Your task to perform on an android device: delete location history Image 0: 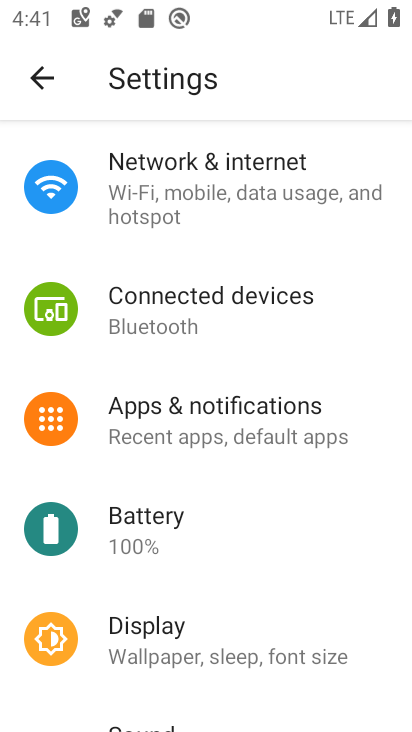
Step 0: drag from (165, 609) to (198, 378)
Your task to perform on an android device: delete location history Image 1: 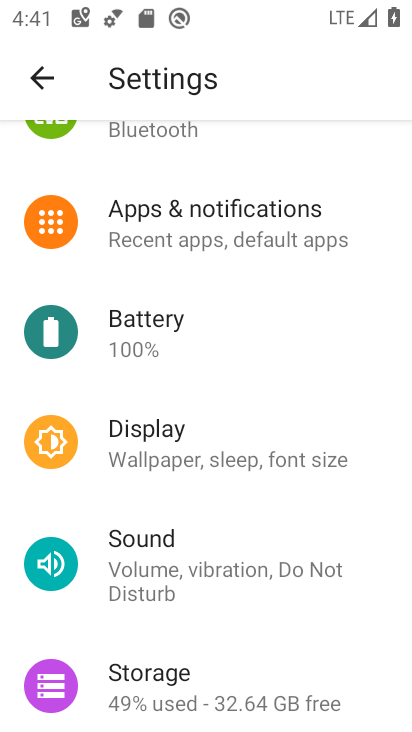
Step 1: press home button
Your task to perform on an android device: delete location history Image 2: 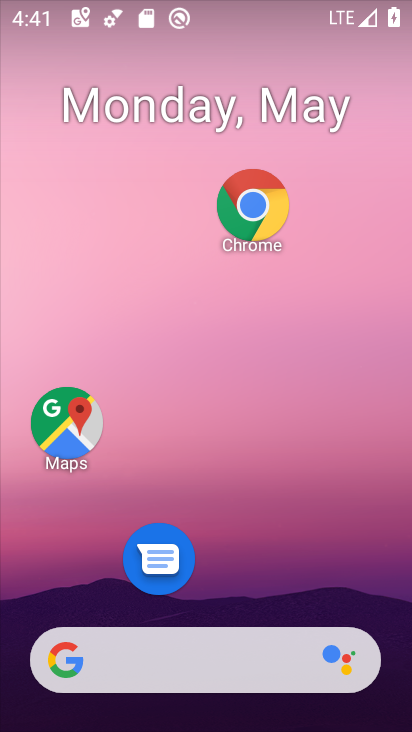
Step 2: click (77, 438)
Your task to perform on an android device: delete location history Image 3: 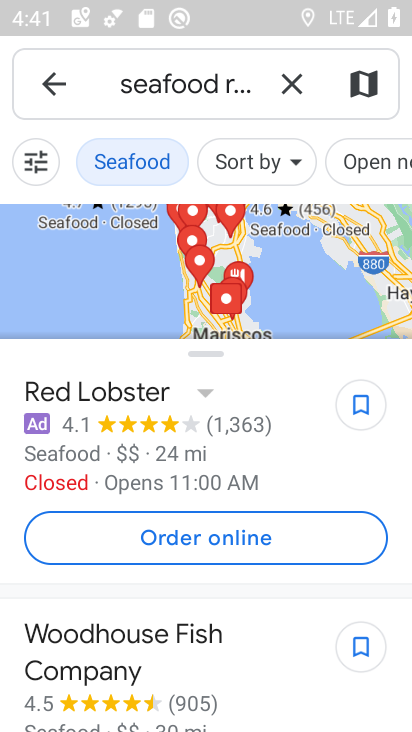
Step 3: click (290, 91)
Your task to perform on an android device: delete location history Image 4: 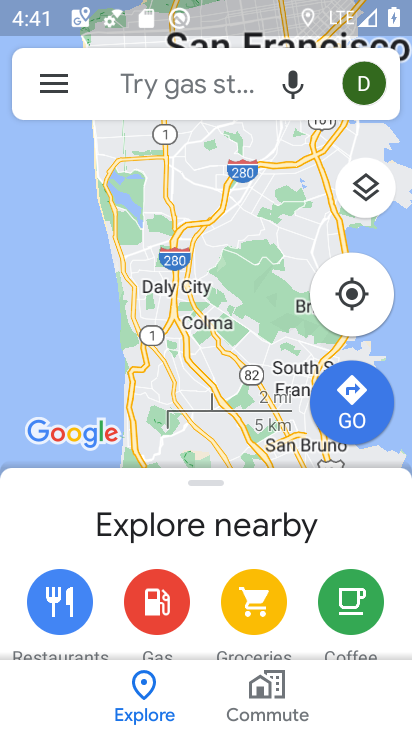
Step 4: click (62, 81)
Your task to perform on an android device: delete location history Image 5: 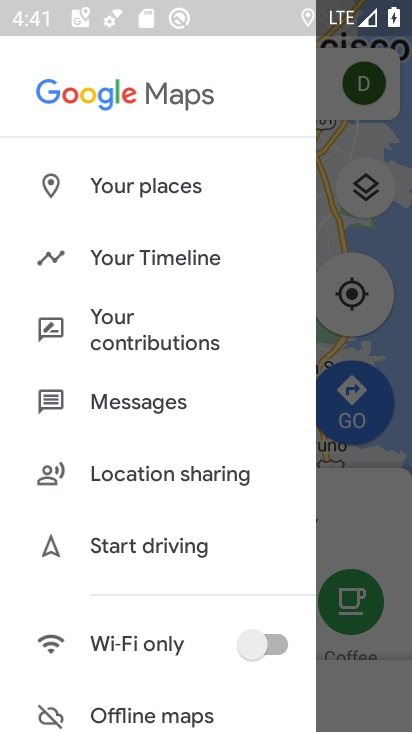
Step 5: click (180, 264)
Your task to perform on an android device: delete location history Image 6: 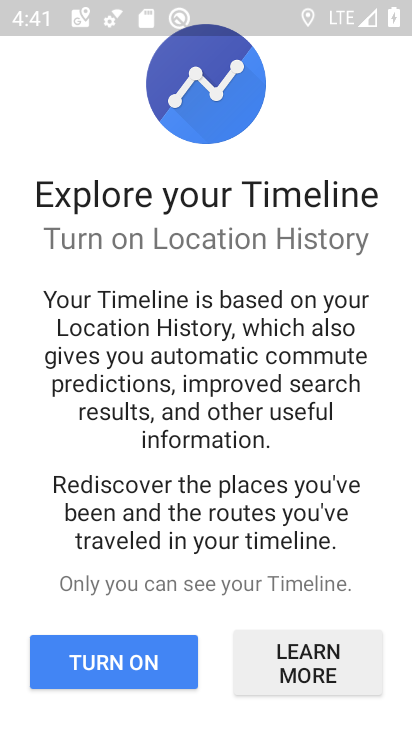
Step 6: drag from (252, 575) to (281, 373)
Your task to perform on an android device: delete location history Image 7: 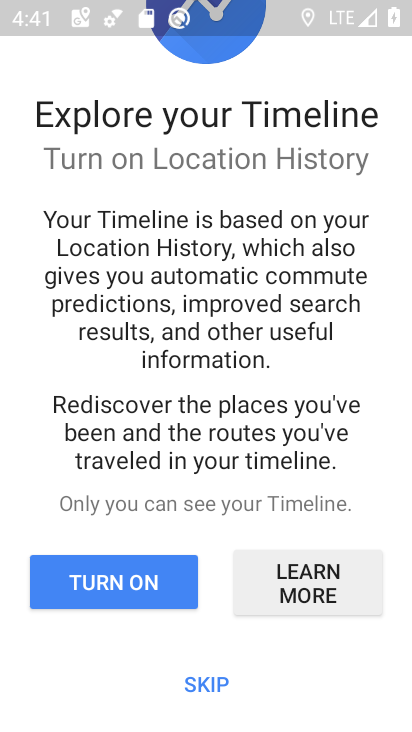
Step 7: click (213, 689)
Your task to perform on an android device: delete location history Image 8: 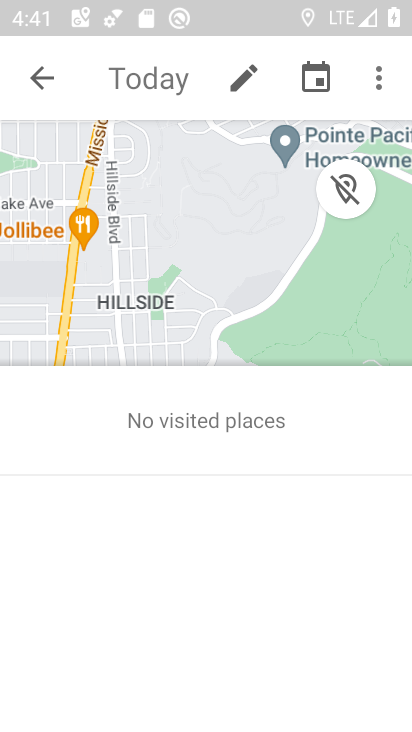
Step 8: click (380, 79)
Your task to perform on an android device: delete location history Image 9: 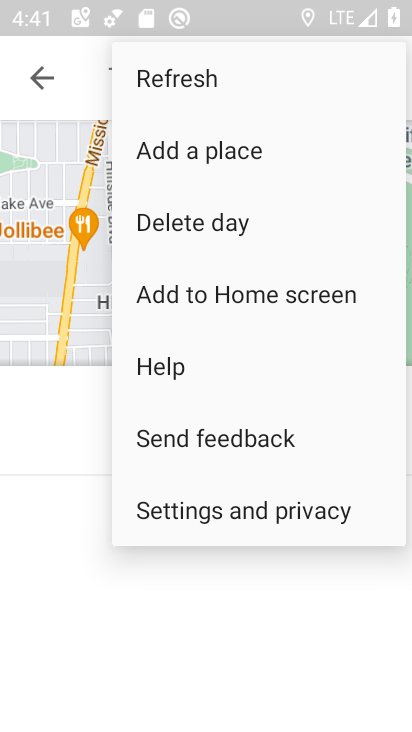
Step 9: click (262, 504)
Your task to perform on an android device: delete location history Image 10: 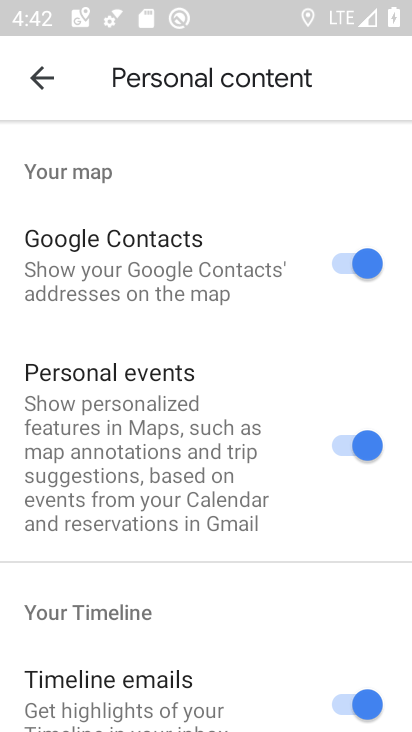
Step 10: drag from (167, 649) to (206, 314)
Your task to perform on an android device: delete location history Image 11: 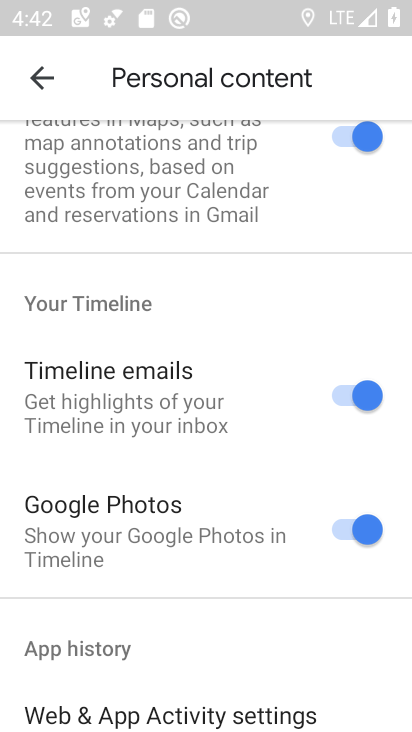
Step 11: drag from (151, 620) to (171, 361)
Your task to perform on an android device: delete location history Image 12: 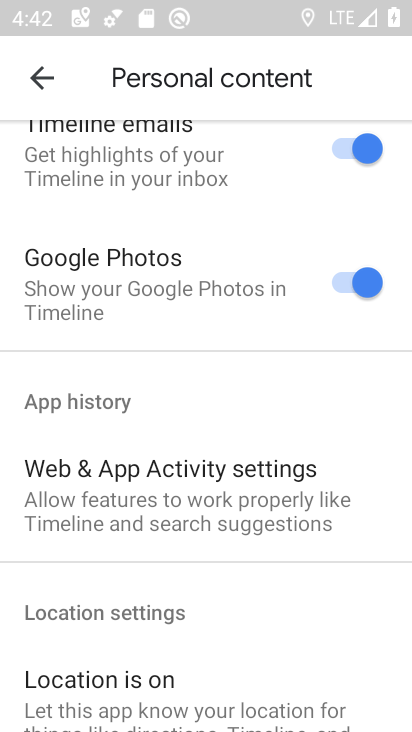
Step 12: drag from (149, 655) to (202, 370)
Your task to perform on an android device: delete location history Image 13: 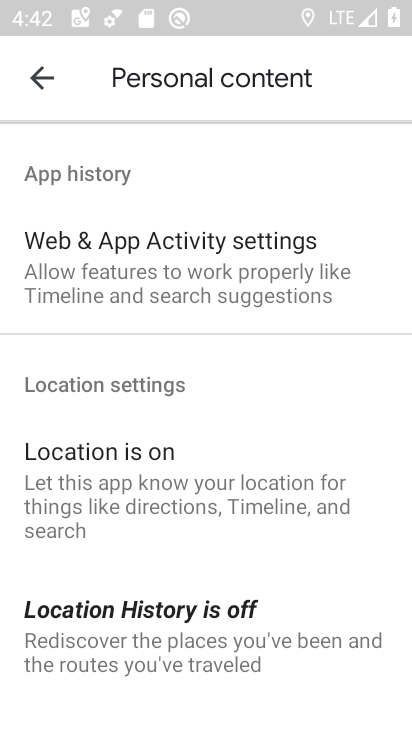
Step 13: drag from (135, 631) to (188, 387)
Your task to perform on an android device: delete location history Image 14: 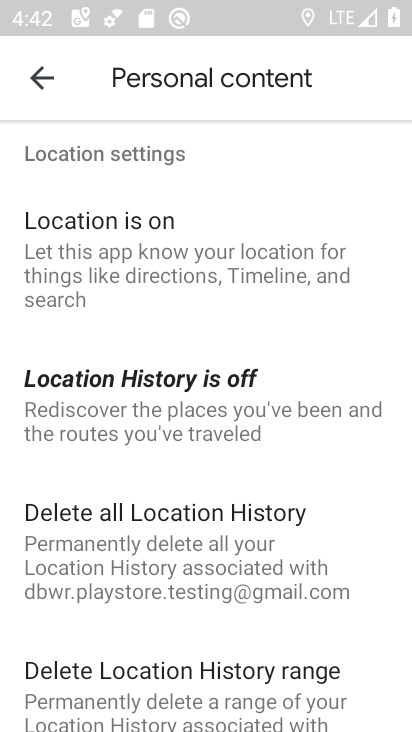
Step 14: drag from (167, 625) to (195, 460)
Your task to perform on an android device: delete location history Image 15: 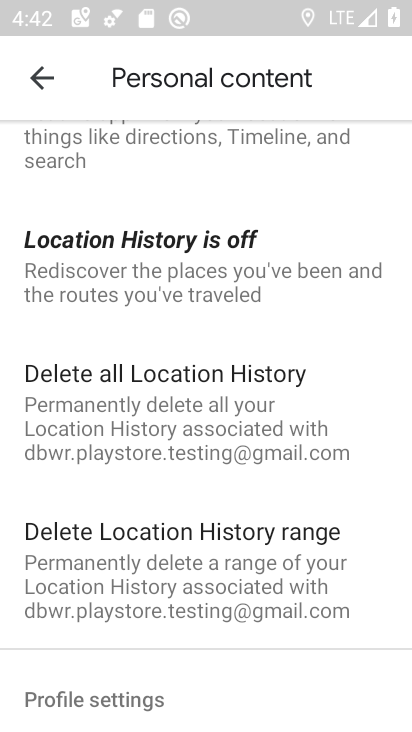
Step 15: click (185, 407)
Your task to perform on an android device: delete location history Image 16: 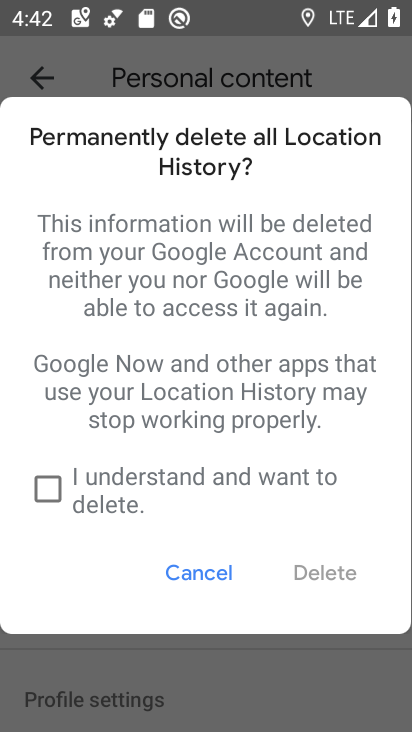
Step 16: click (39, 498)
Your task to perform on an android device: delete location history Image 17: 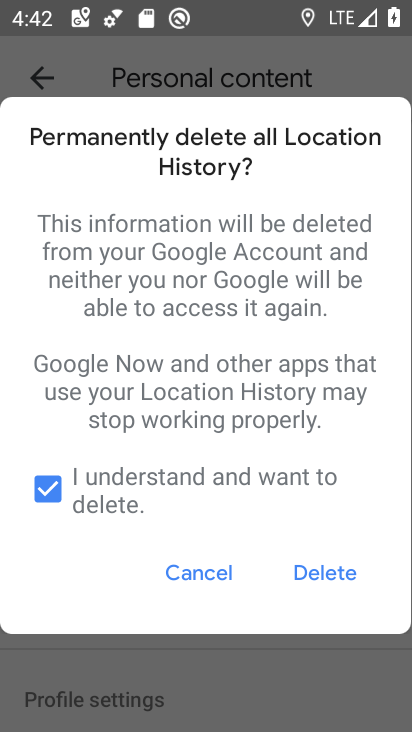
Step 17: click (317, 575)
Your task to perform on an android device: delete location history Image 18: 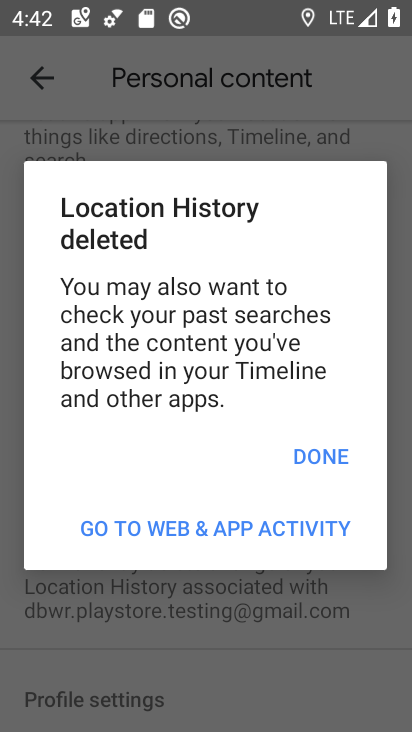
Step 18: click (340, 443)
Your task to perform on an android device: delete location history Image 19: 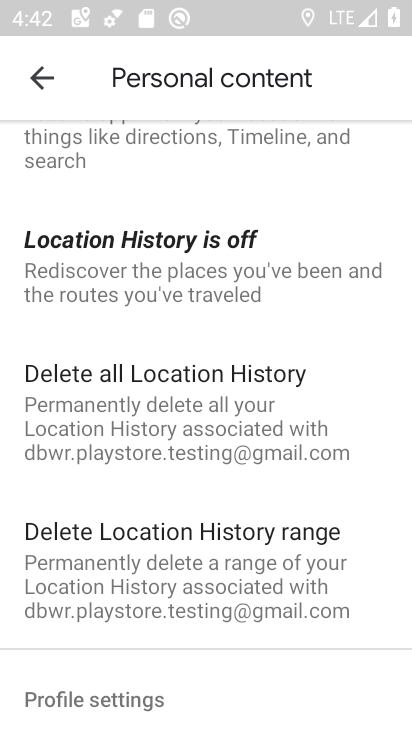
Step 19: task complete